Your task to perform on an android device: open wifi settings Image 0: 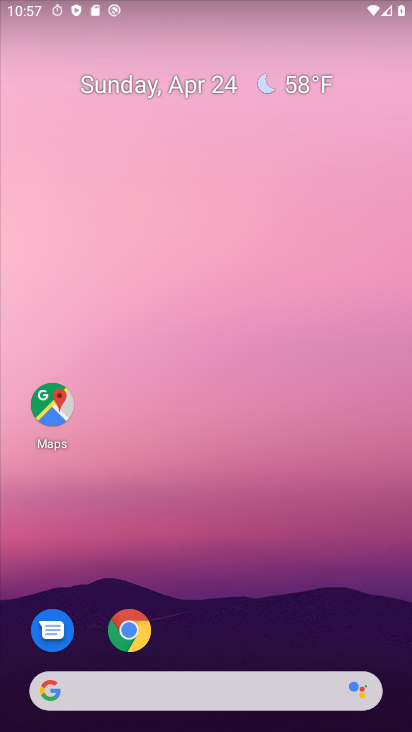
Step 0: drag from (208, 565) to (302, 209)
Your task to perform on an android device: open wifi settings Image 1: 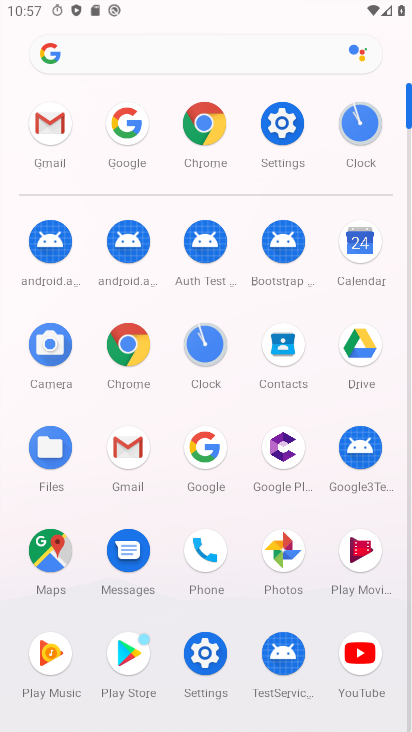
Step 1: click (278, 124)
Your task to perform on an android device: open wifi settings Image 2: 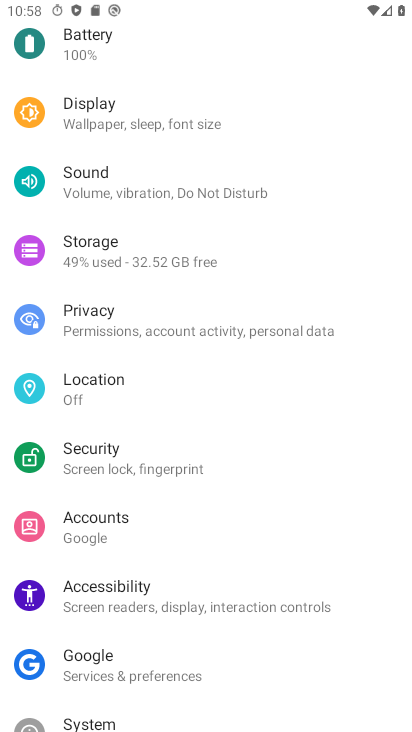
Step 2: drag from (302, 201) to (185, 681)
Your task to perform on an android device: open wifi settings Image 3: 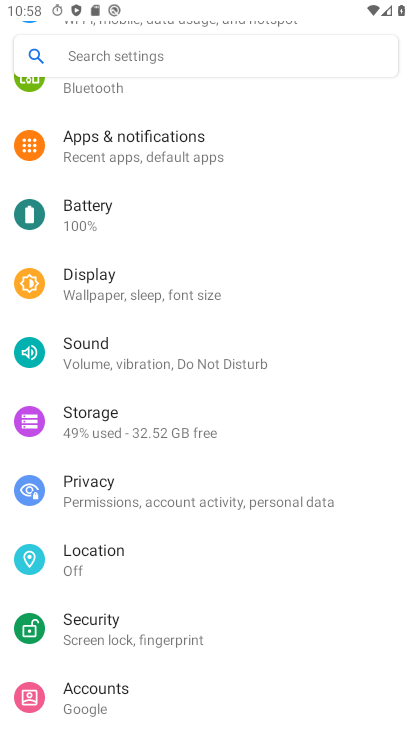
Step 3: drag from (221, 355) to (211, 661)
Your task to perform on an android device: open wifi settings Image 4: 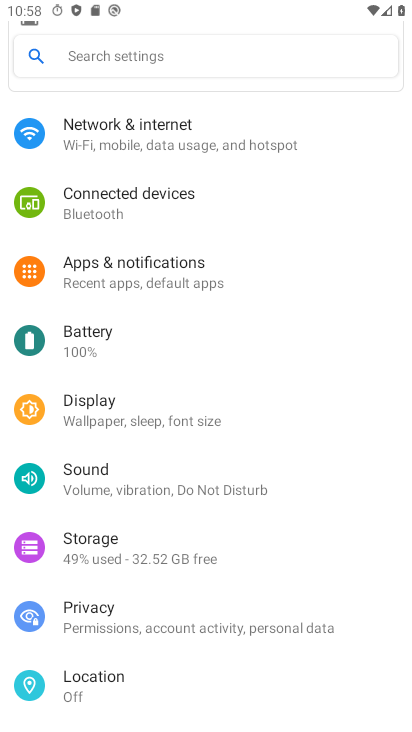
Step 4: click (233, 152)
Your task to perform on an android device: open wifi settings Image 5: 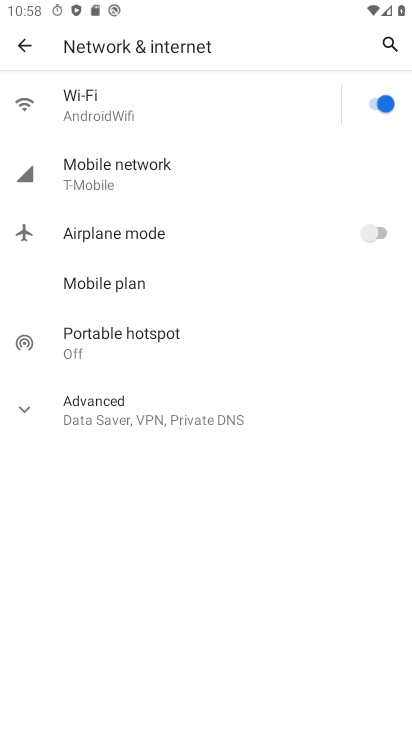
Step 5: click (165, 125)
Your task to perform on an android device: open wifi settings Image 6: 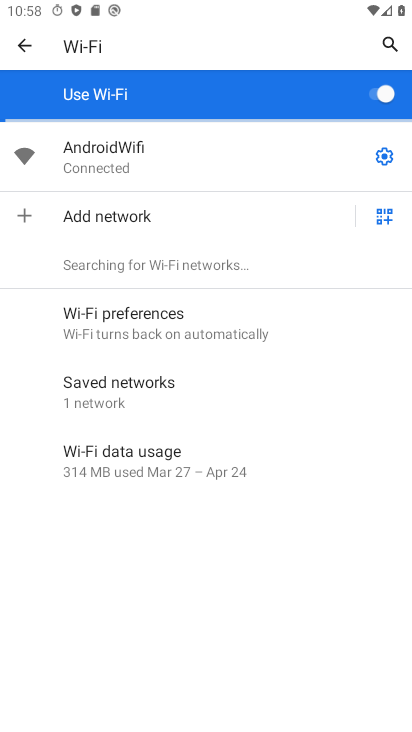
Step 6: task complete